Your task to perform on an android device: Go to battery settings Image 0: 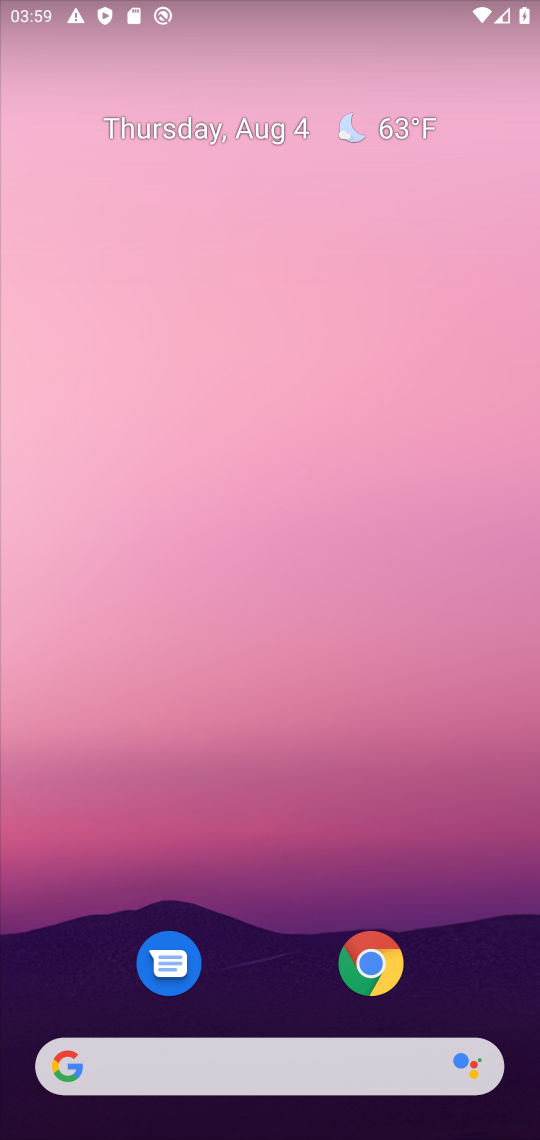
Step 0: drag from (264, 789) to (298, 30)
Your task to perform on an android device: Go to battery settings Image 1: 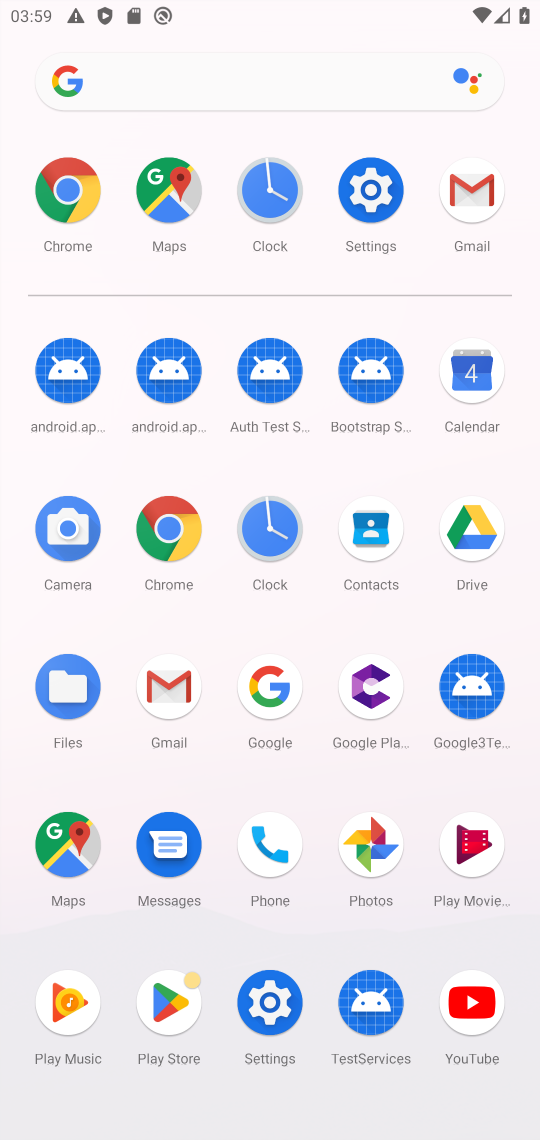
Step 1: click (356, 189)
Your task to perform on an android device: Go to battery settings Image 2: 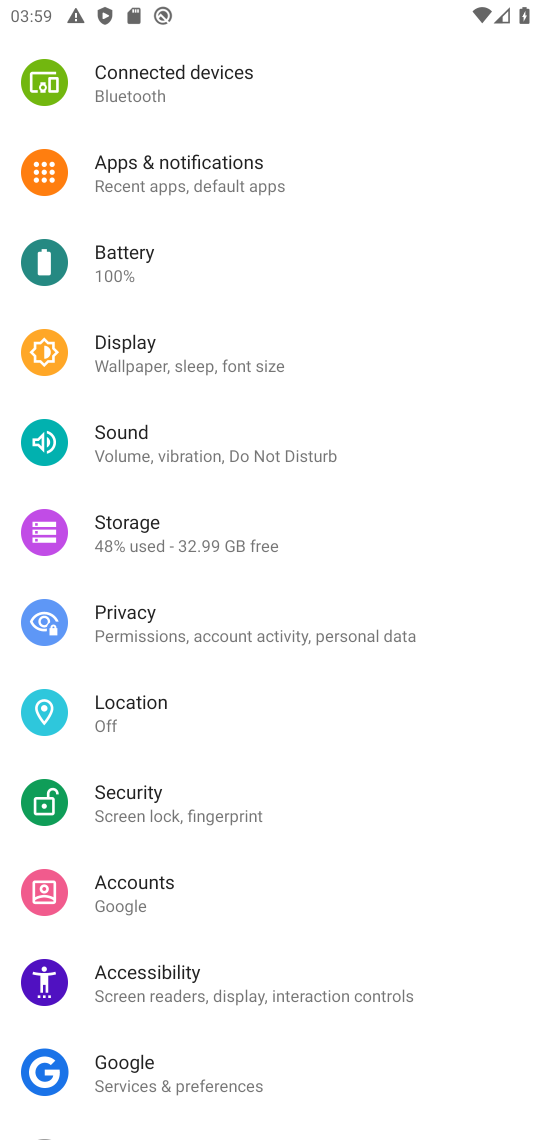
Step 2: click (111, 275)
Your task to perform on an android device: Go to battery settings Image 3: 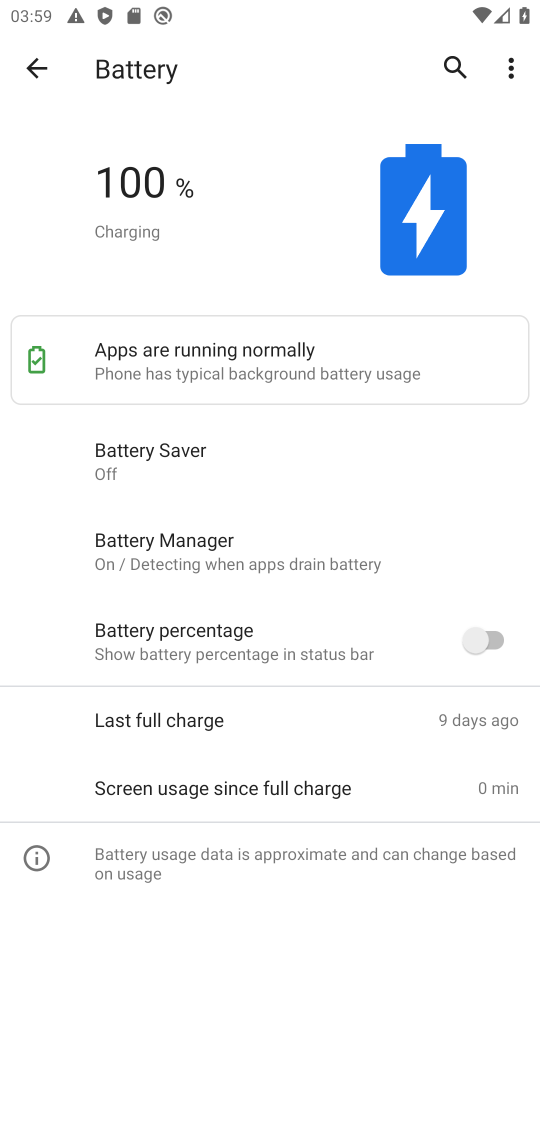
Step 3: task complete